Your task to perform on an android device: Do I have any events today? Image 0: 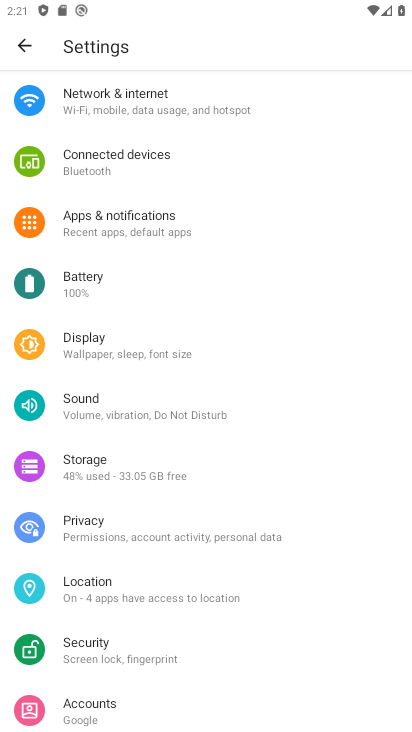
Step 0: press home button
Your task to perform on an android device: Do I have any events today? Image 1: 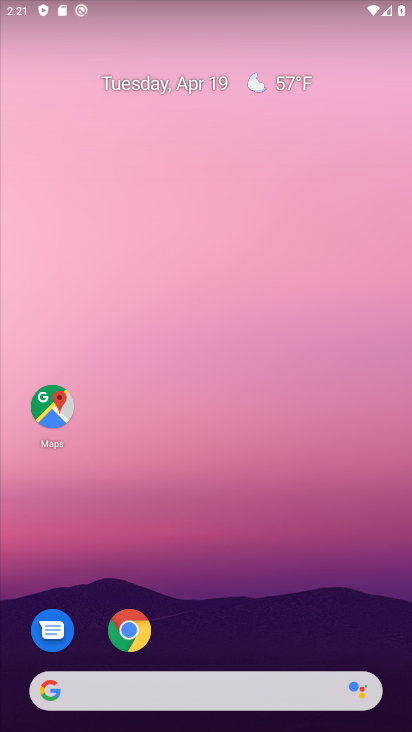
Step 1: drag from (209, 590) to (156, 35)
Your task to perform on an android device: Do I have any events today? Image 2: 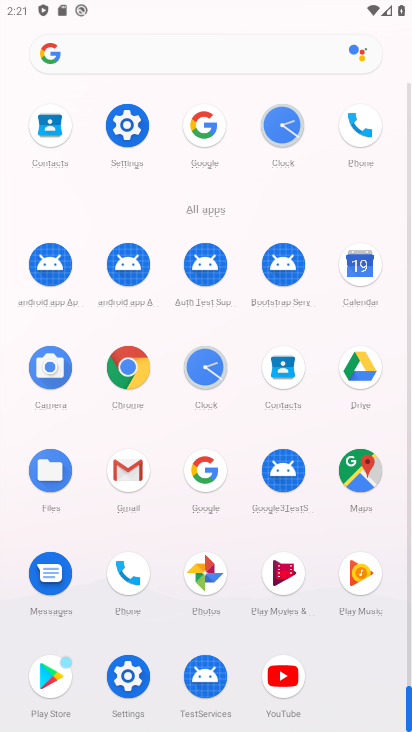
Step 2: click (358, 261)
Your task to perform on an android device: Do I have any events today? Image 3: 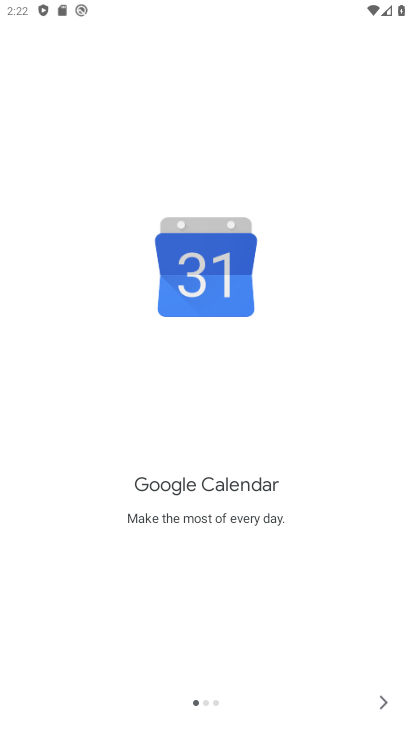
Step 3: click (384, 698)
Your task to perform on an android device: Do I have any events today? Image 4: 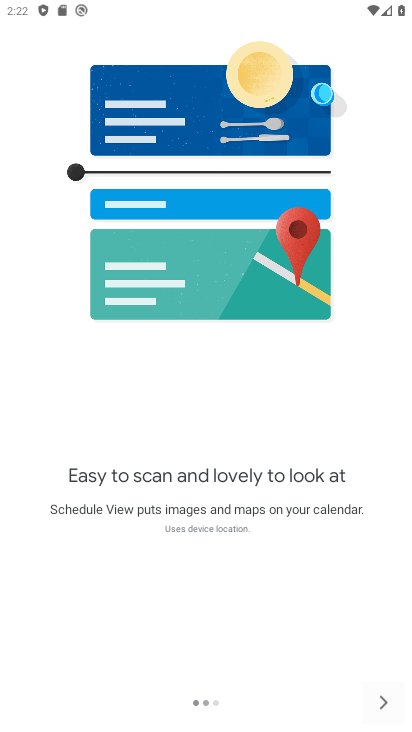
Step 4: click (384, 697)
Your task to perform on an android device: Do I have any events today? Image 5: 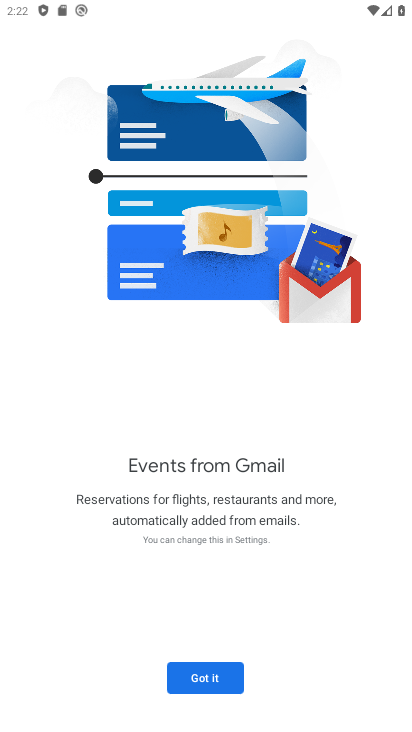
Step 5: click (210, 669)
Your task to perform on an android device: Do I have any events today? Image 6: 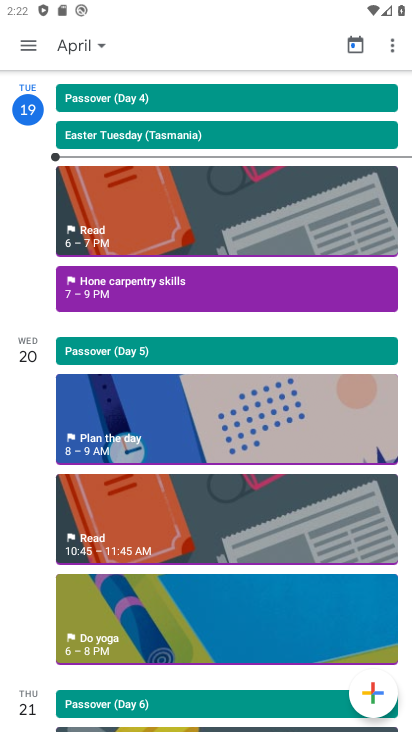
Step 6: task complete